Your task to perform on an android device: open app "Adobe Acrobat Reader: Edit PDF" (install if not already installed) Image 0: 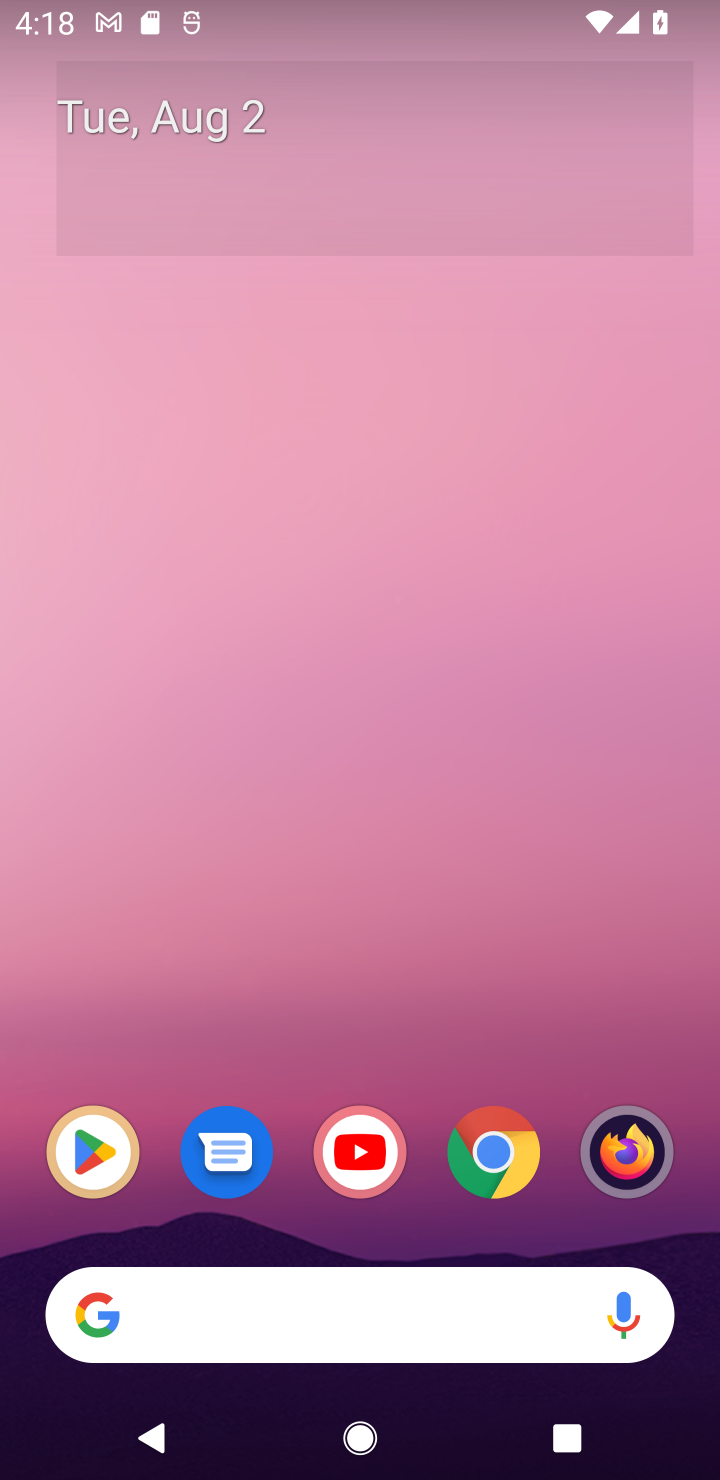
Step 0: drag from (529, 619) to (527, 103)
Your task to perform on an android device: open app "Adobe Acrobat Reader: Edit PDF" (install if not already installed) Image 1: 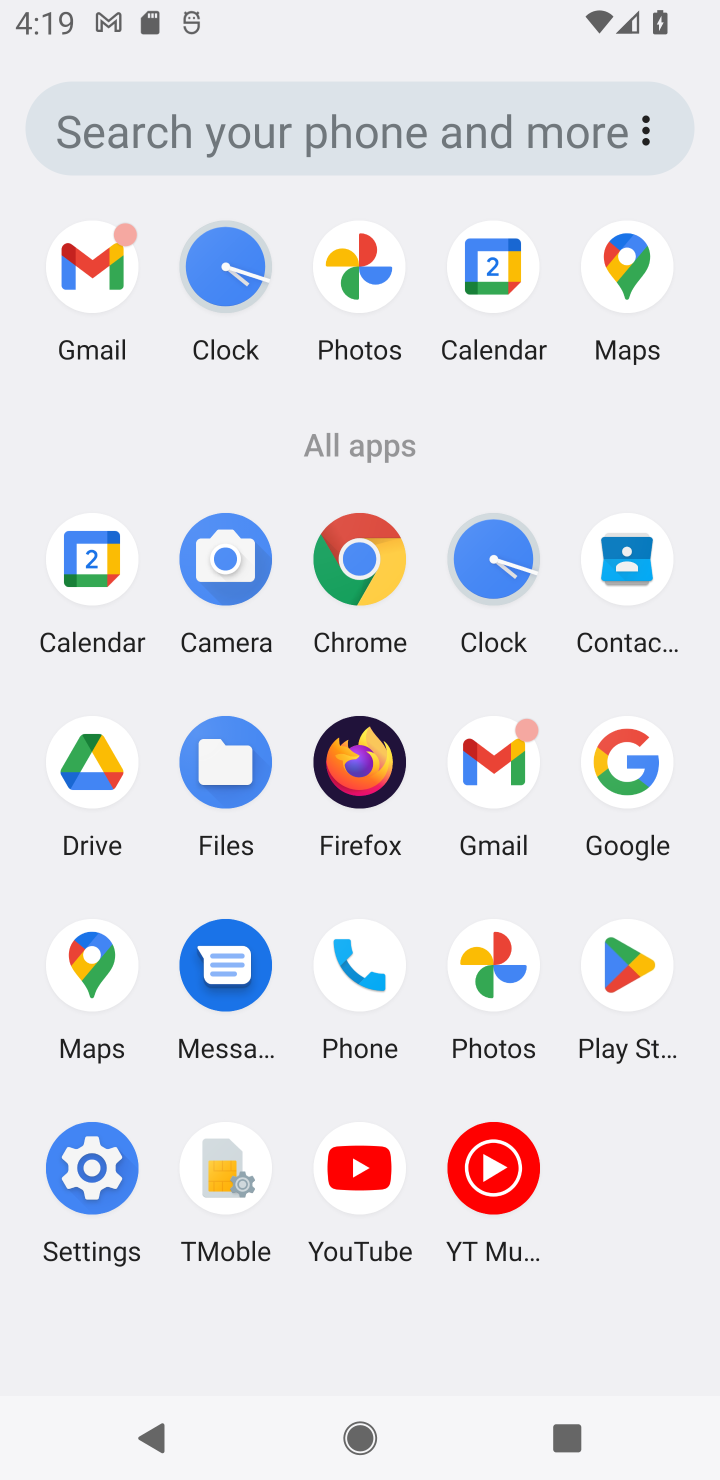
Step 1: click (633, 934)
Your task to perform on an android device: open app "Adobe Acrobat Reader: Edit PDF" (install if not already installed) Image 2: 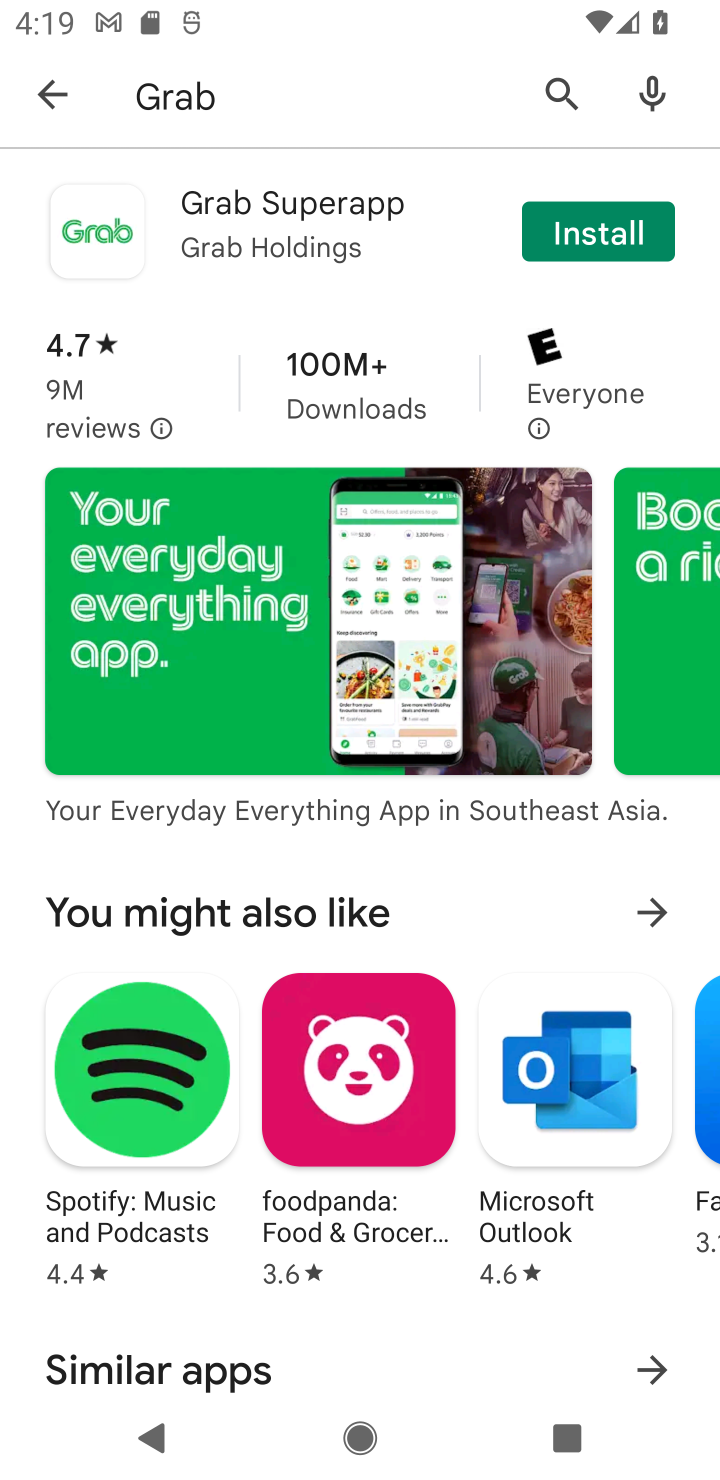
Step 2: click (261, 110)
Your task to perform on an android device: open app "Adobe Acrobat Reader: Edit PDF" (install if not already installed) Image 3: 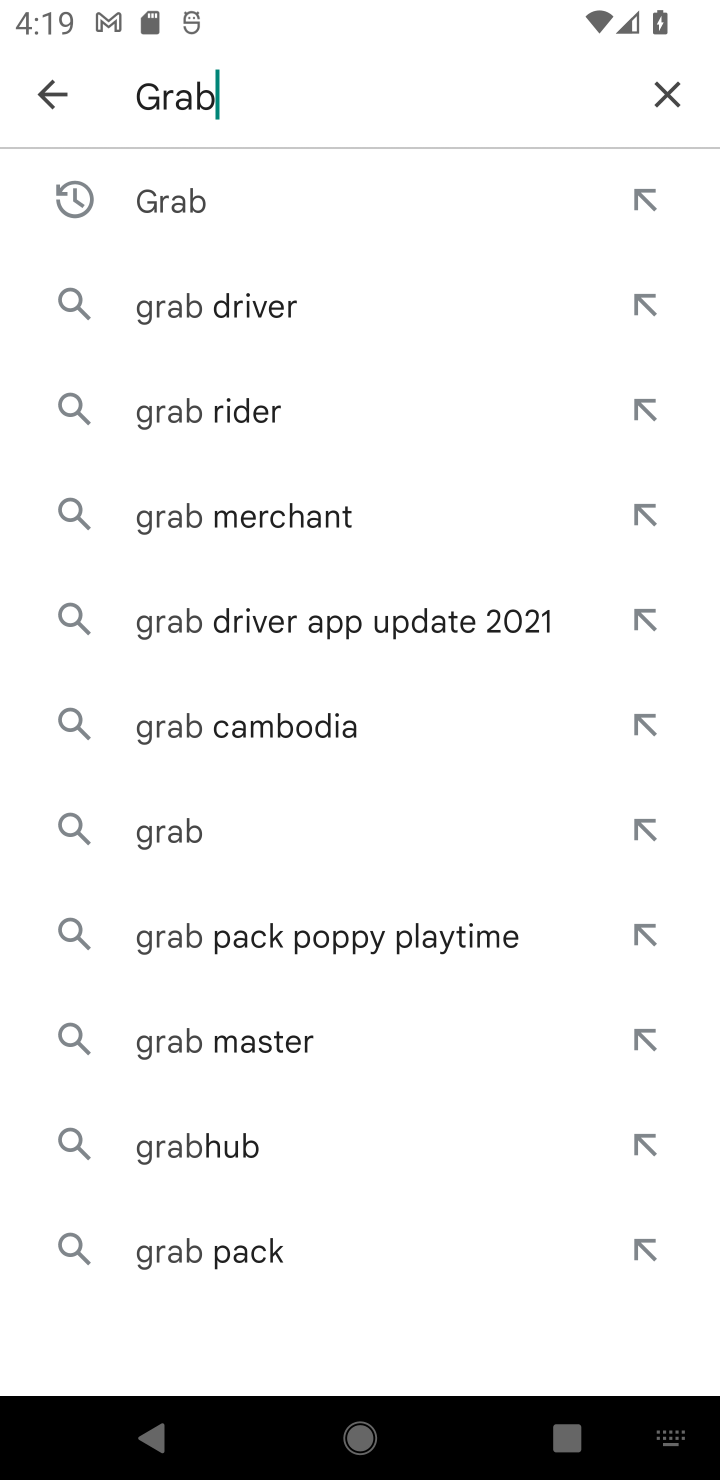
Step 3: click (670, 95)
Your task to perform on an android device: open app "Adobe Acrobat Reader: Edit PDF" (install if not already installed) Image 4: 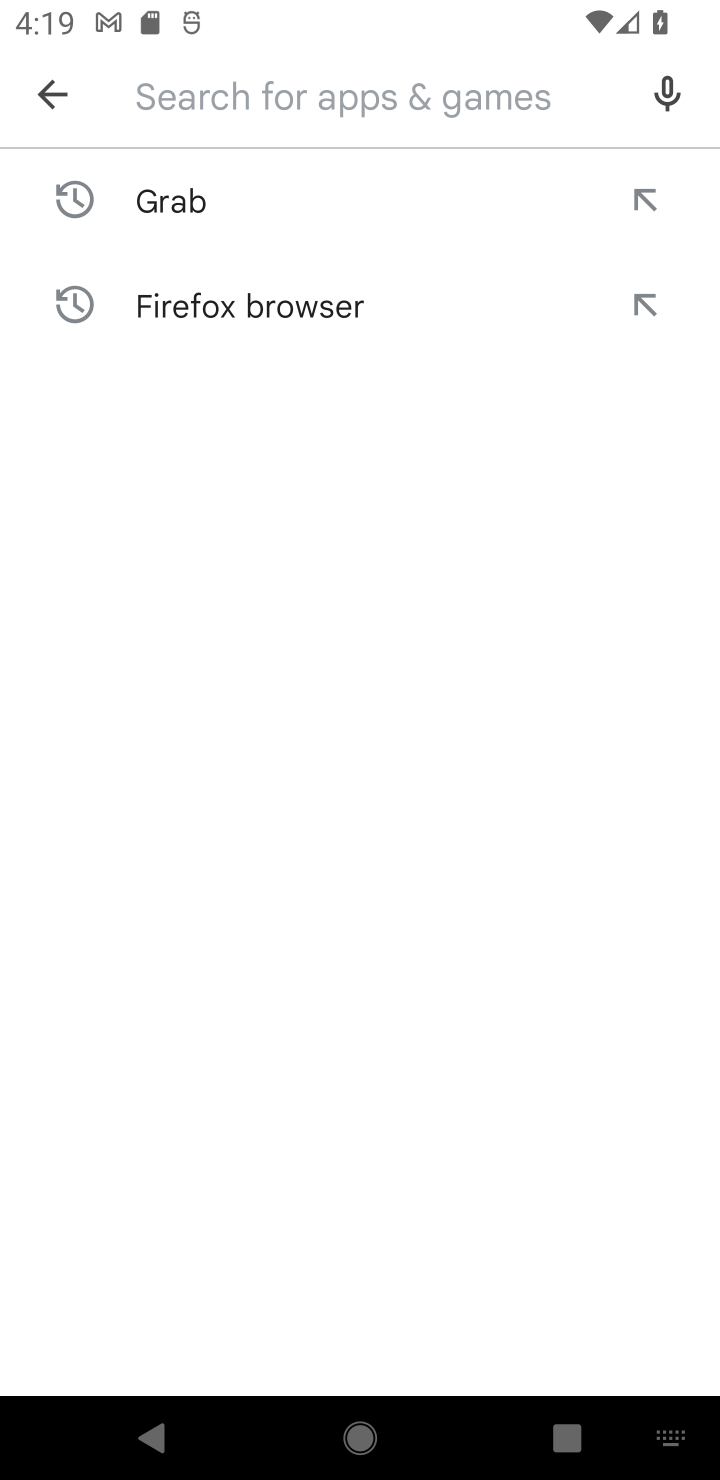
Step 4: type "Adobe Acrobat Reader"
Your task to perform on an android device: open app "Adobe Acrobat Reader: Edit PDF" (install if not already installed) Image 5: 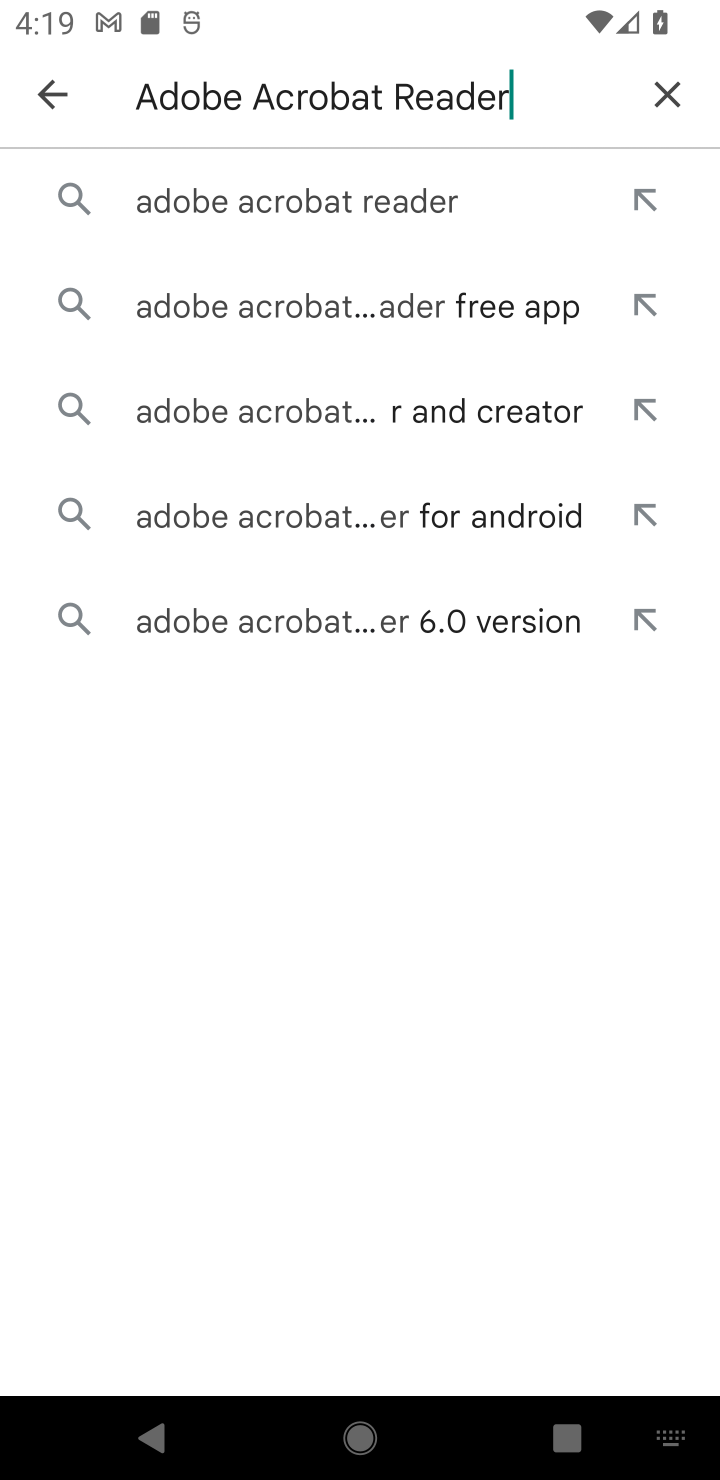
Step 5: press enter
Your task to perform on an android device: open app "Adobe Acrobat Reader: Edit PDF" (install if not already installed) Image 6: 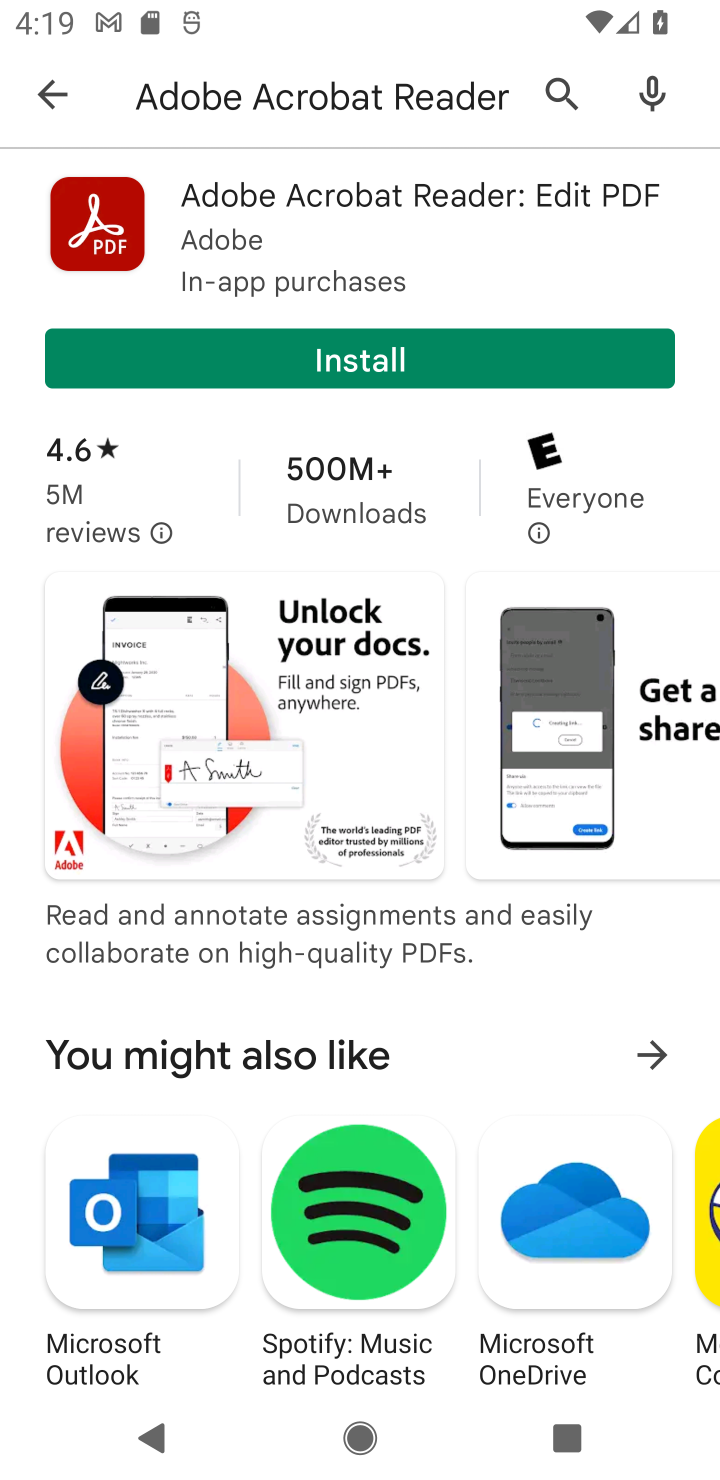
Step 6: click (478, 353)
Your task to perform on an android device: open app "Adobe Acrobat Reader: Edit PDF" (install if not already installed) Image 7: 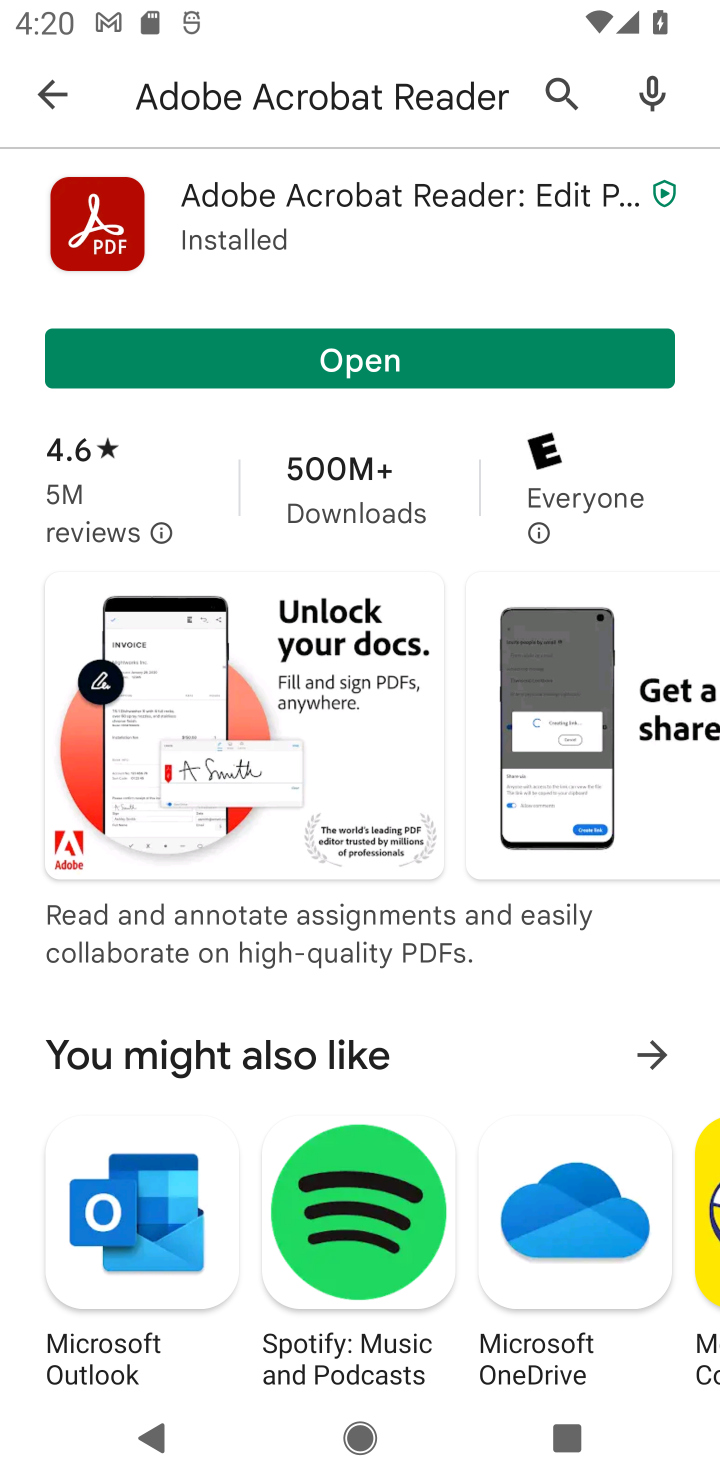
Step 7: click (482, 371)
Your task to perform on an android device: open app "Adobe Acrobat Reader: Edit PDF" (install if not already installed) Image 8: 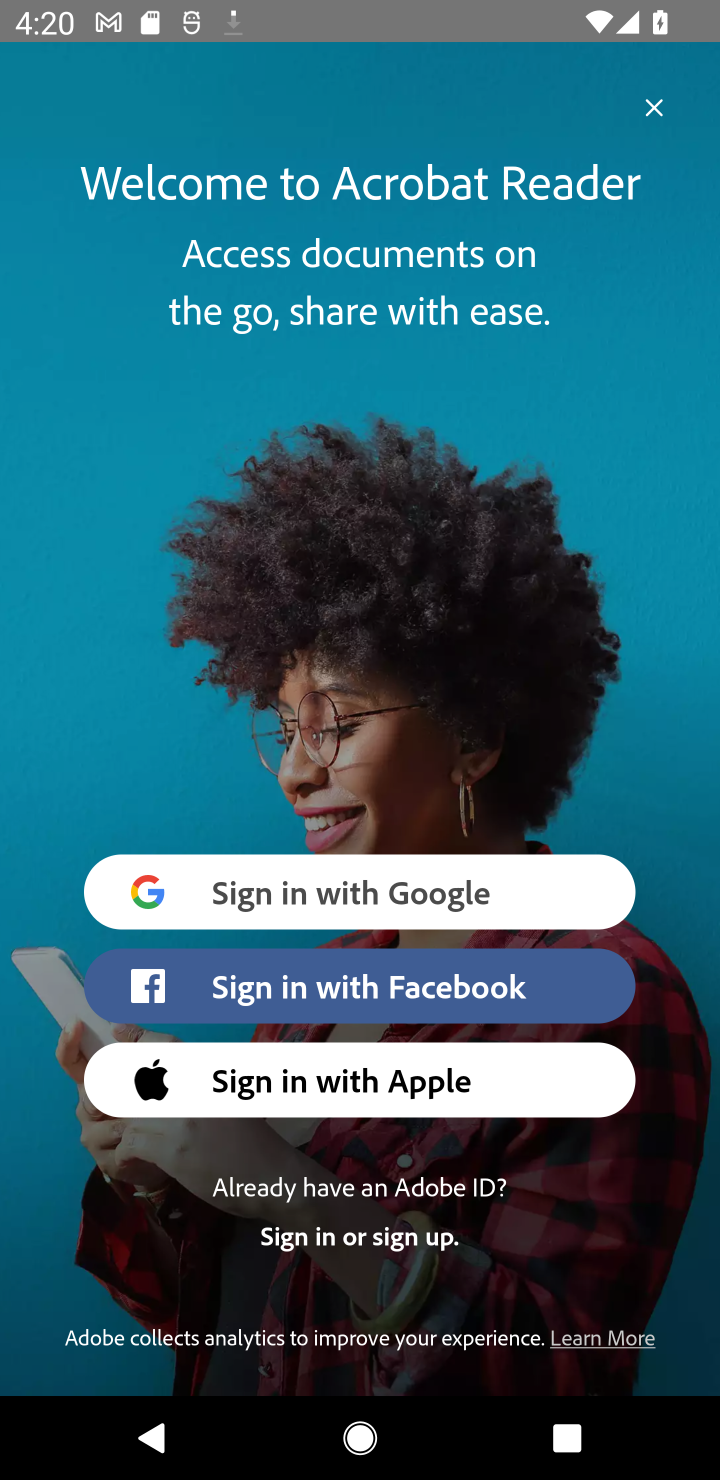
Step 8: task complete